Your task to perform on an android device: Search for a custom made wallet Image 0: 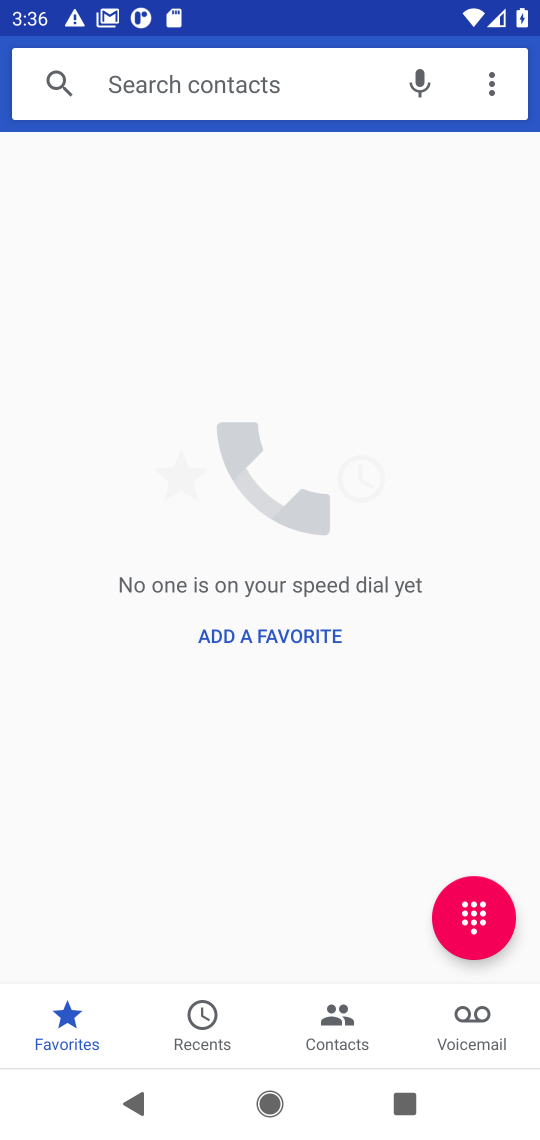
Step 0: press home button
Your task to perform on an android device: Search for a custom made wallet Image 1: 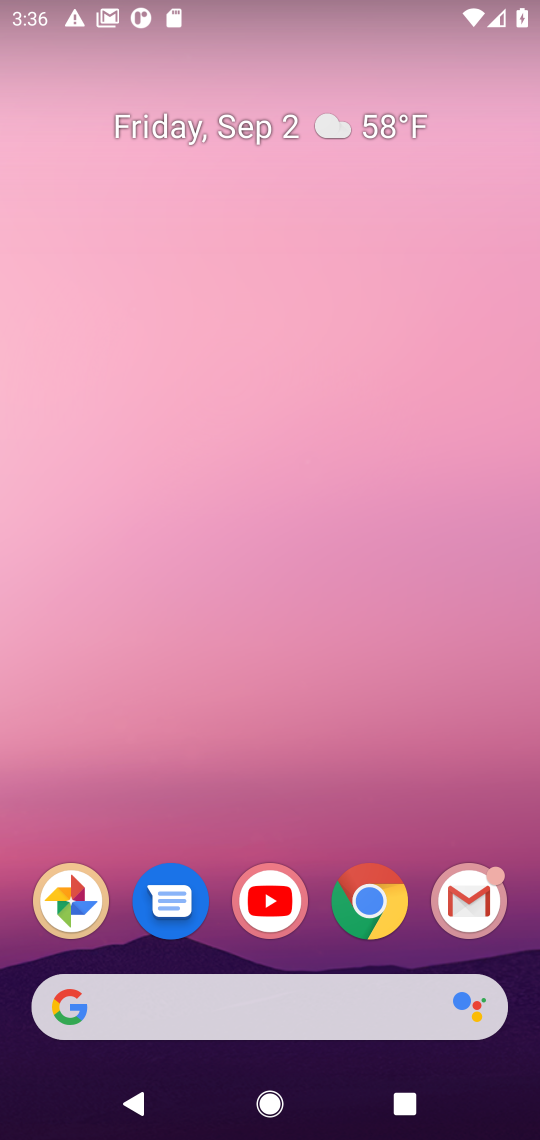
Step 1: drag from (342, 786) to (415, 324)
Your task to perform on an android device: Search for a custom made wallet Image 2: 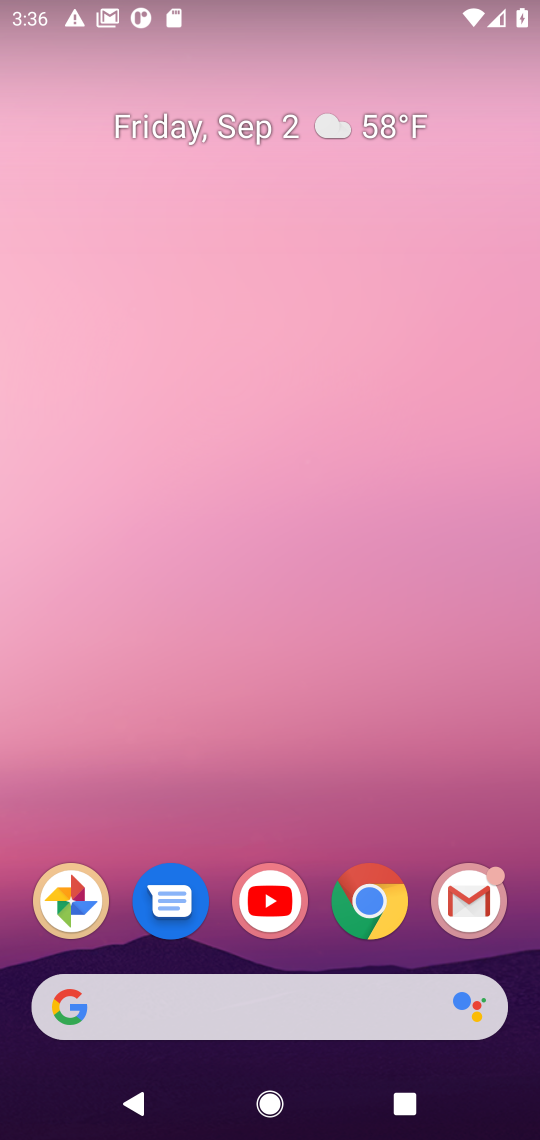
Step 2: drag from (420, 833) to (364, 79)
Your task to perform on an android device: Search for a custom made wallet Image 3: 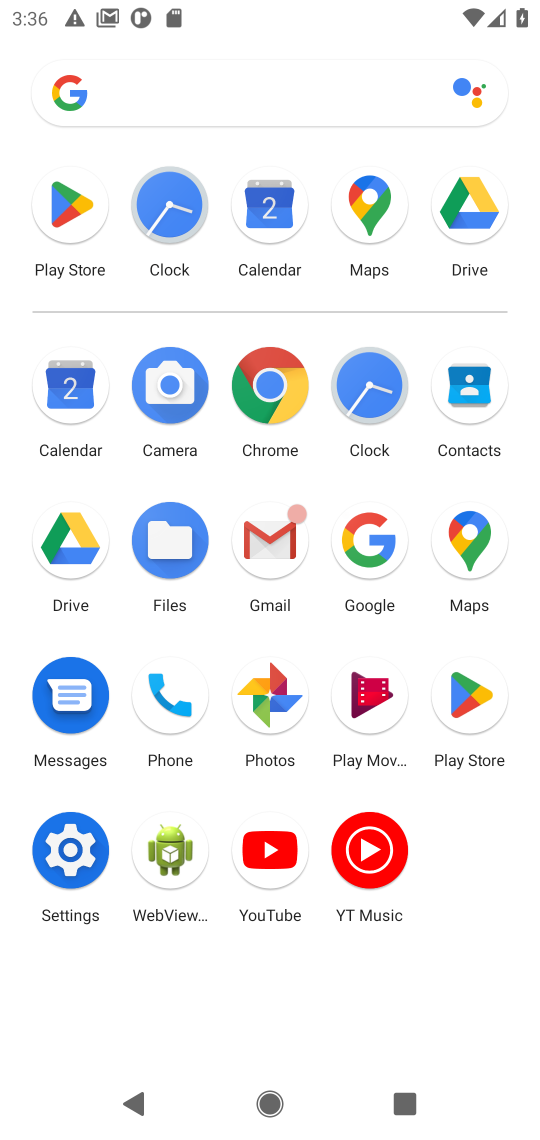
Step 3: click (263, 381)
Your task to perform on an android device: Search for a custom made wallet Image 4: 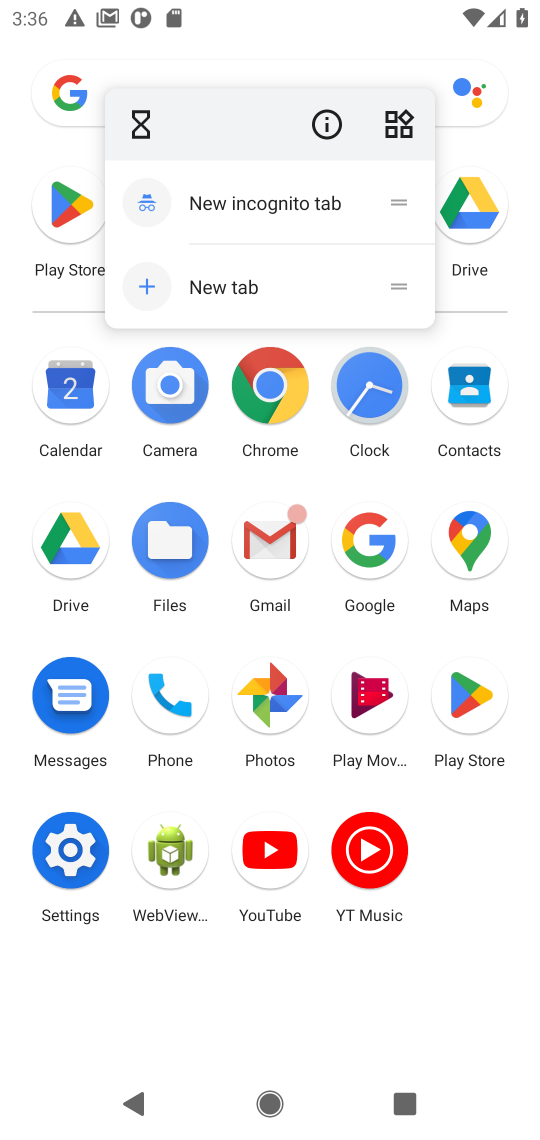
Step 4: click (263, 381)
Your task to perform on an android device: Search for a custom made wallet Image 5: 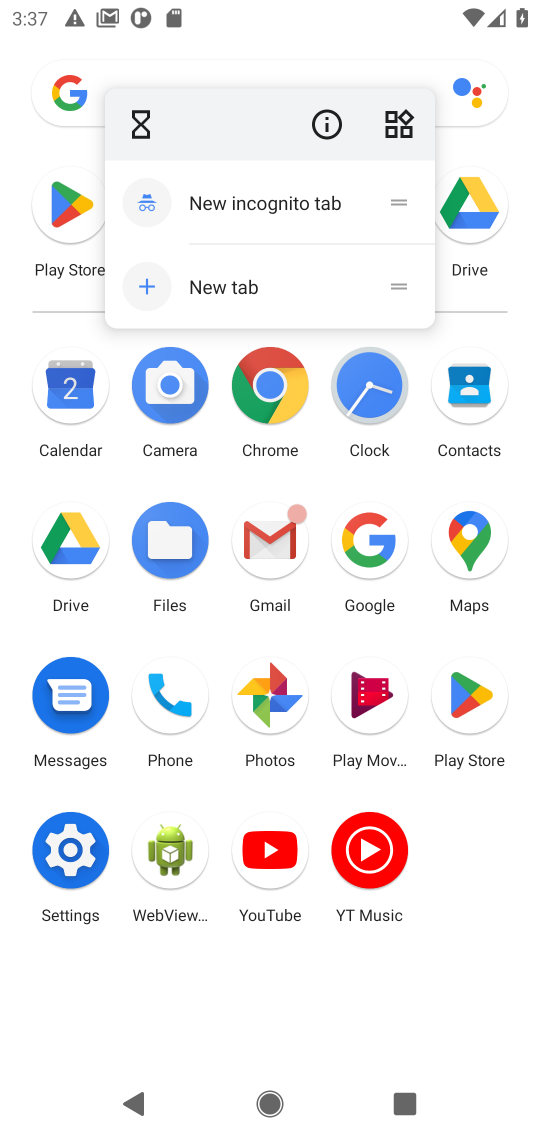
Step 5: click (286, 383)
Your task to perform on an android device: Search for a custom made wallet Image 6: 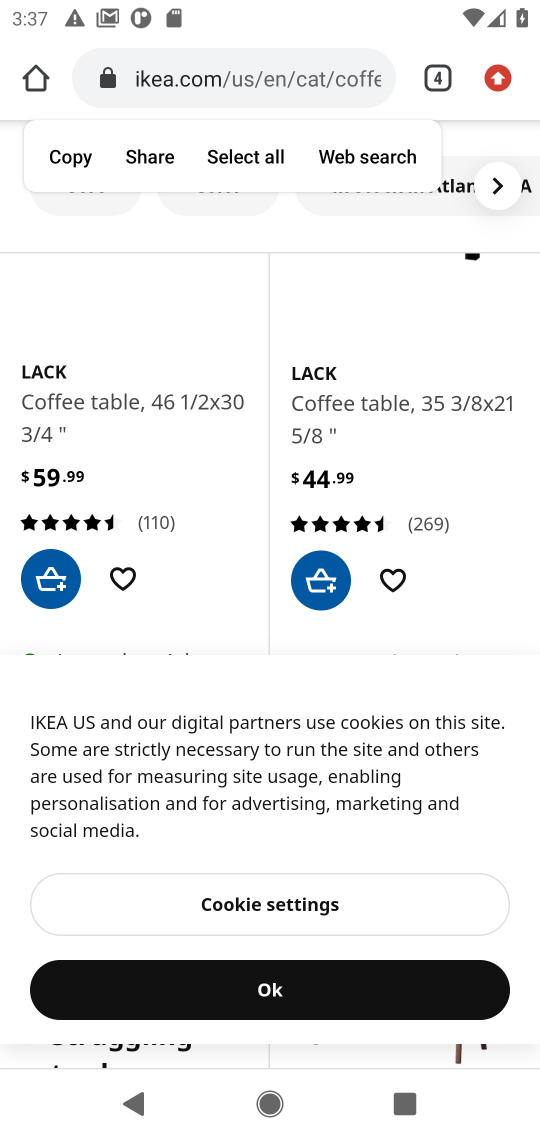
Step 6: click (298, 90)
Your task to perform on an android device: Search for a custom made wallet Image 7: 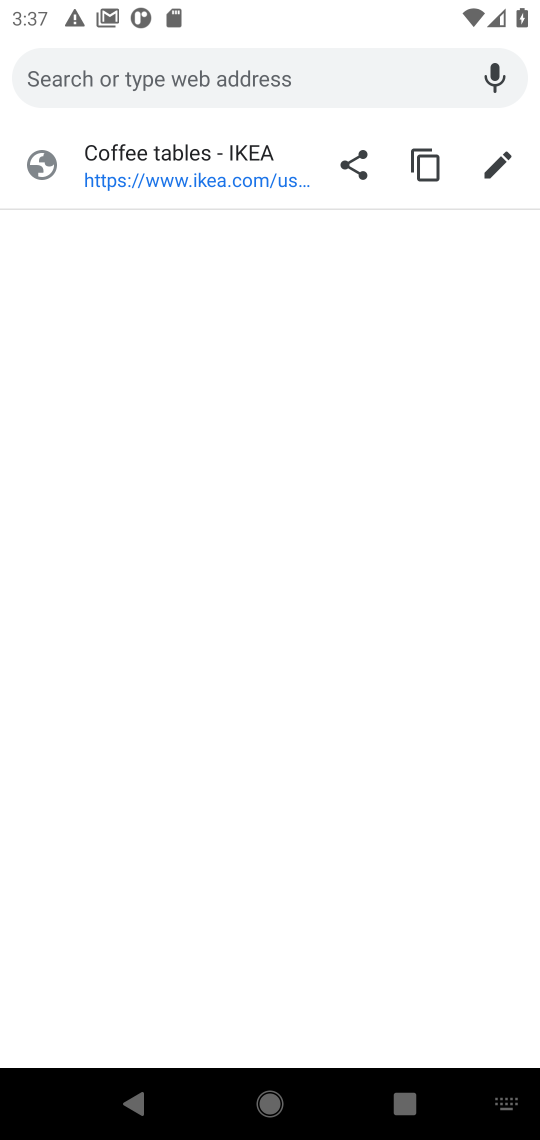
Step 7: type "custom made wallet"
Your task to perform on an android device: Search for a custom made wallet Image 8: 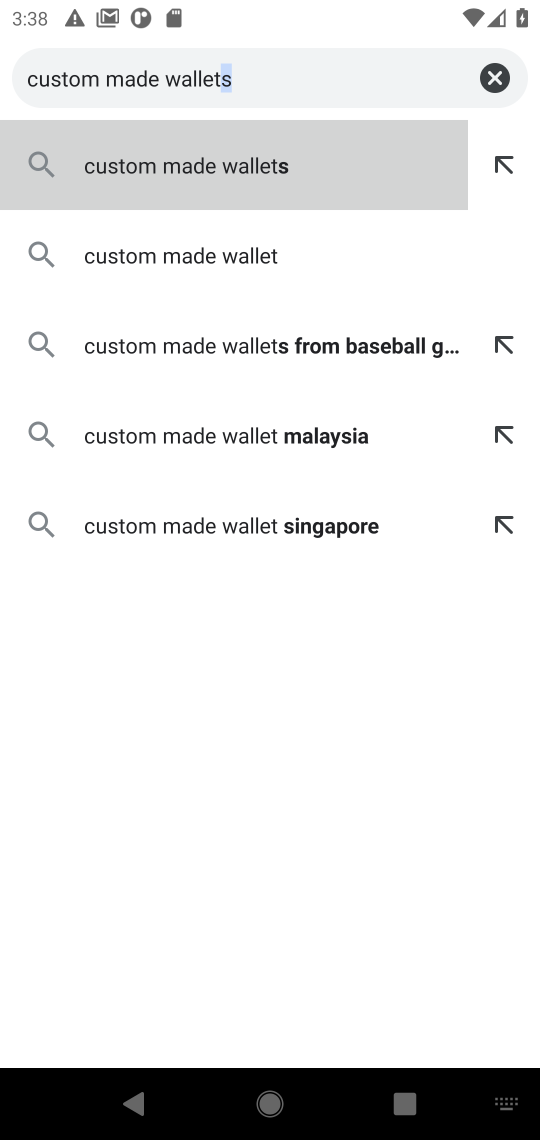
Step 8: click (326, 170)
Your task to perform on an android device: Search for a custom made wallet Image 9: 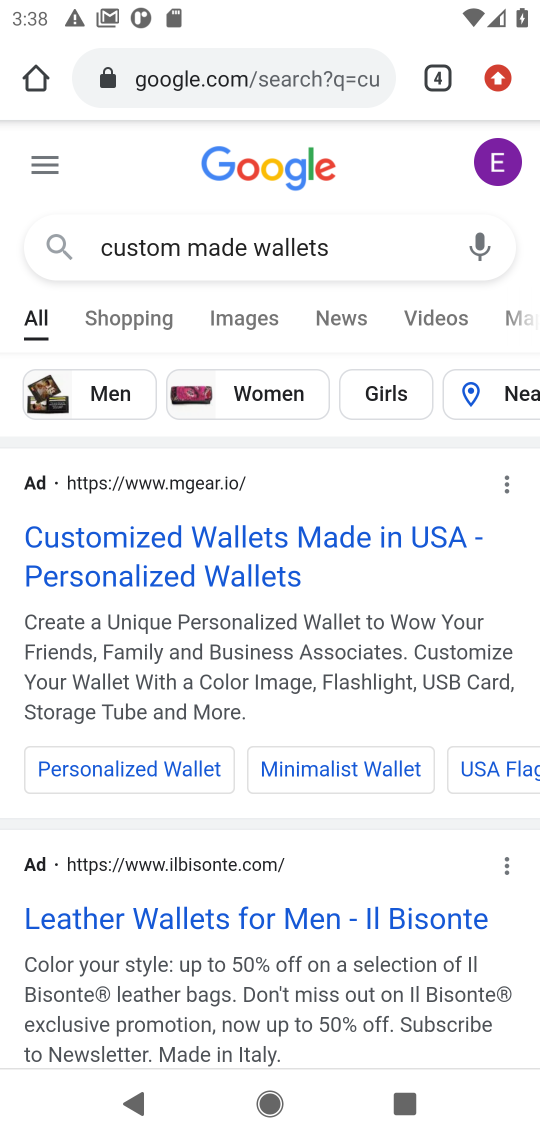
Step 9: drag from (306, 915) to (401, 14)
Your task to perform on an android device: Search for a custom made wallet Image 10: 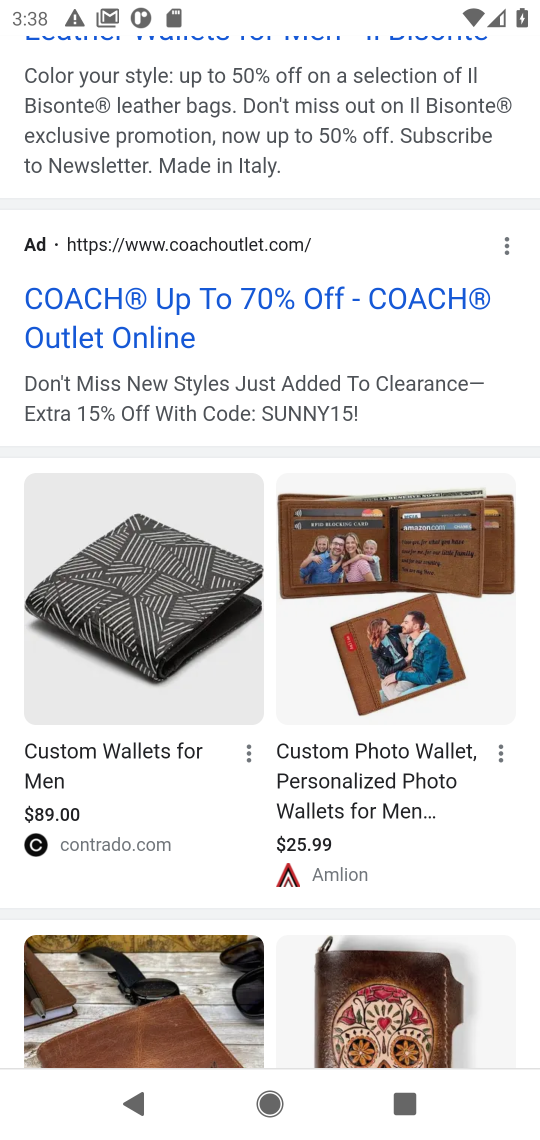
Step 10: drag from (240, 750) to (309, 147)
Your task to perform on an android device: Search for a custom made wallet Image 11: 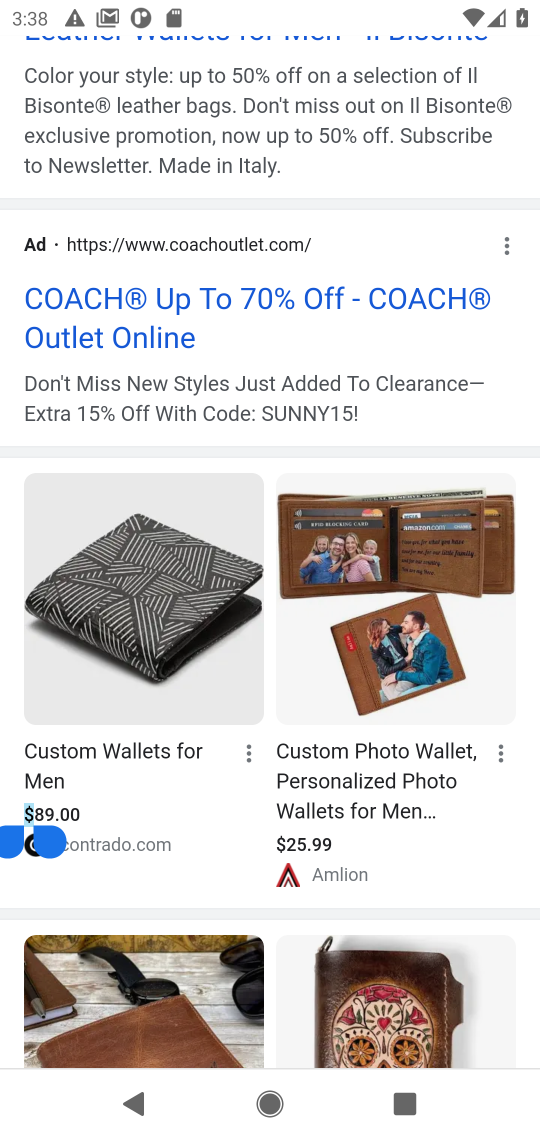
Step 11: drag from (314, 416) to (379, 137)
Your task to perform on an android device: Search for a custom made wallet Image 12: 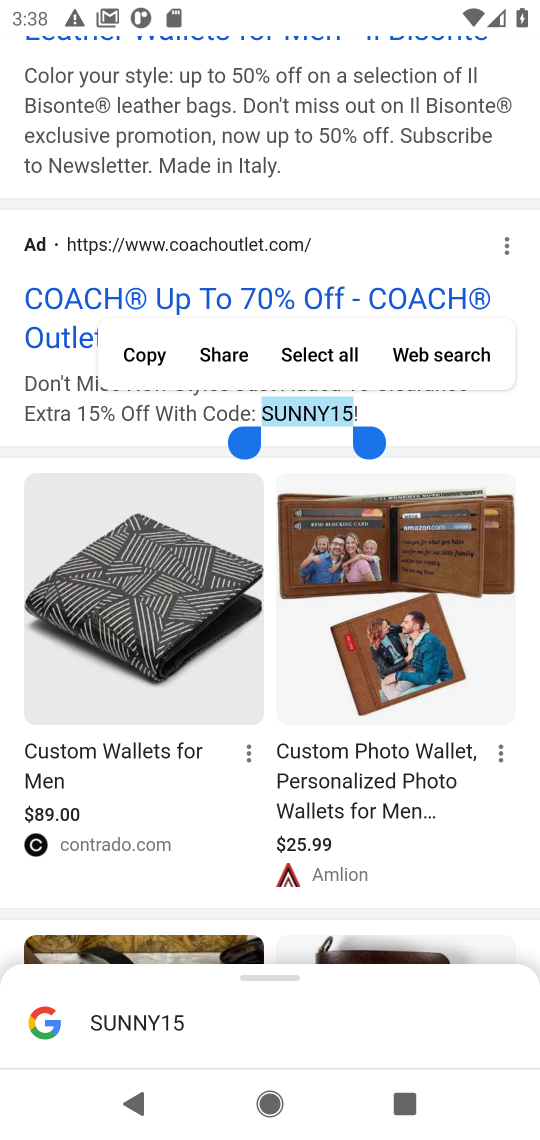
Step 12: drag from (262, 865) to (359, 164)
Your task to perform on an android device: Search for a custom made wallet Image 13: 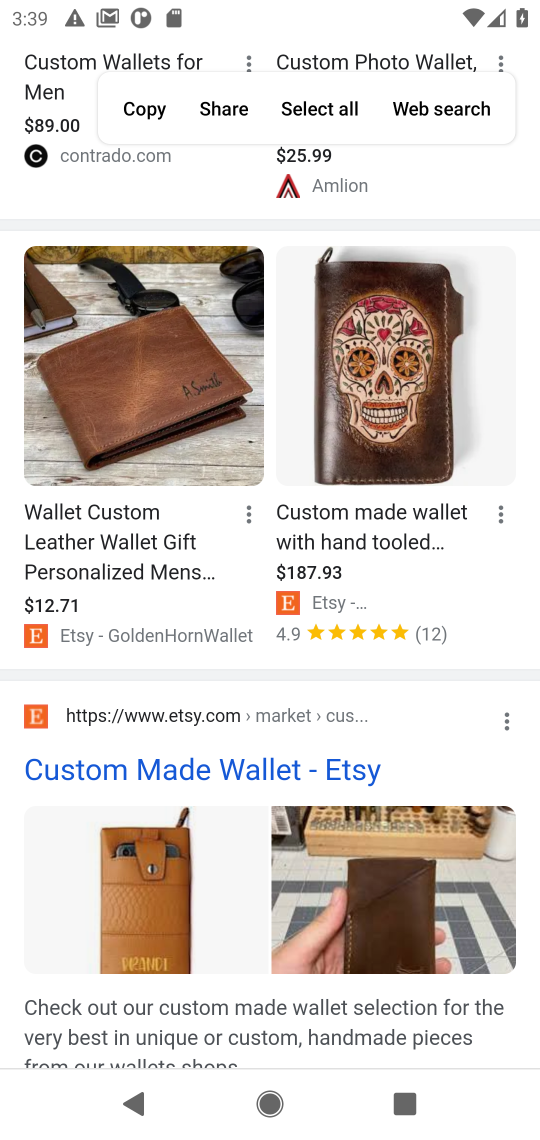
Step 13: click (135, 763)
Your task to perform on an android device: Search for a custom made wallet Image 14: 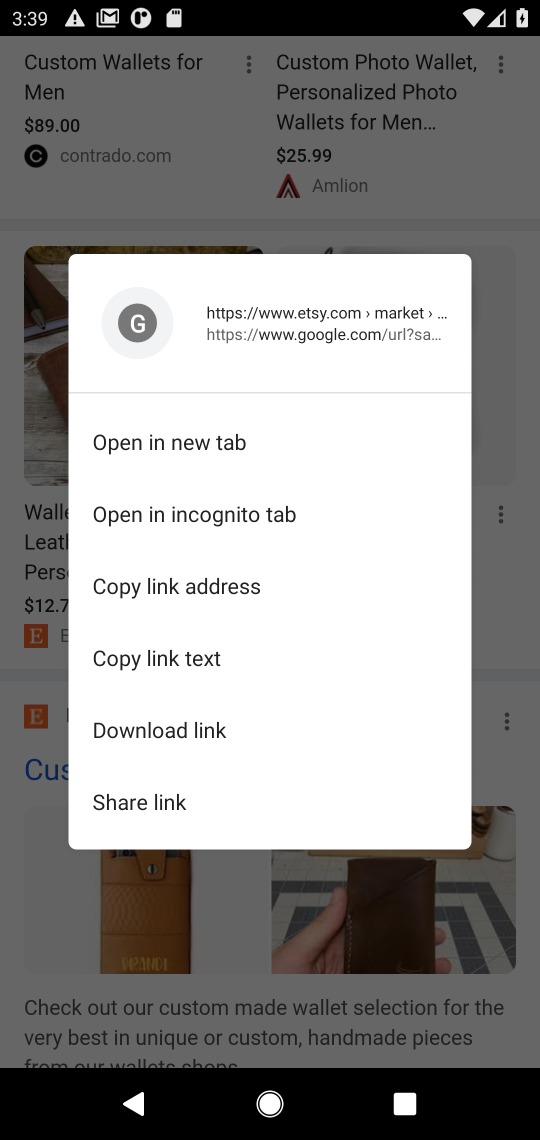
Step 14: click (350, 874)
Your task to perform on an android device: Search for a custom made wallet Image 15: 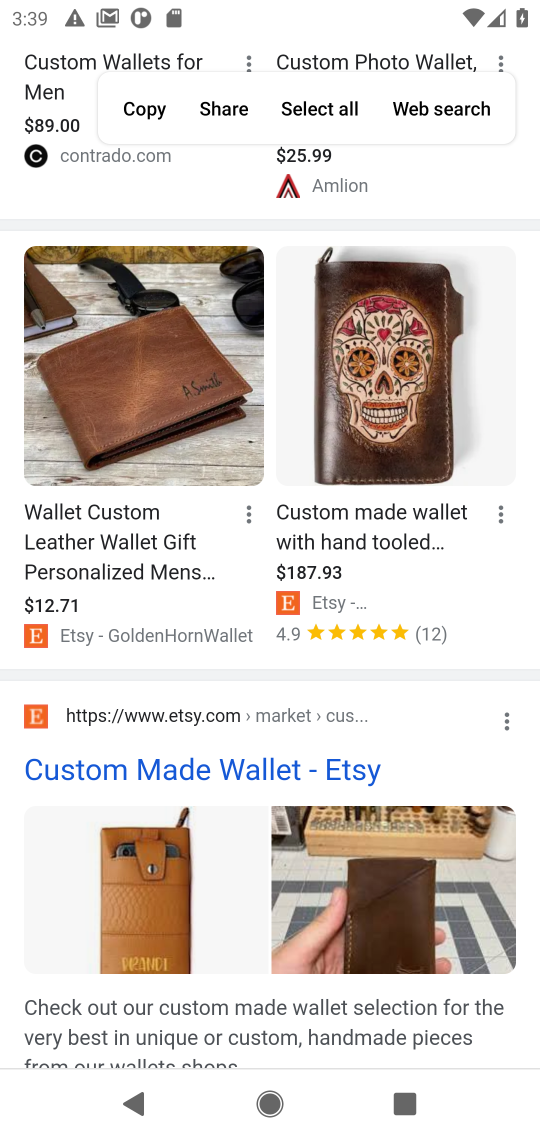
Step 15: click (222, 765)
Your task to perform on an android device: Search for a custom made wallet Image 16: 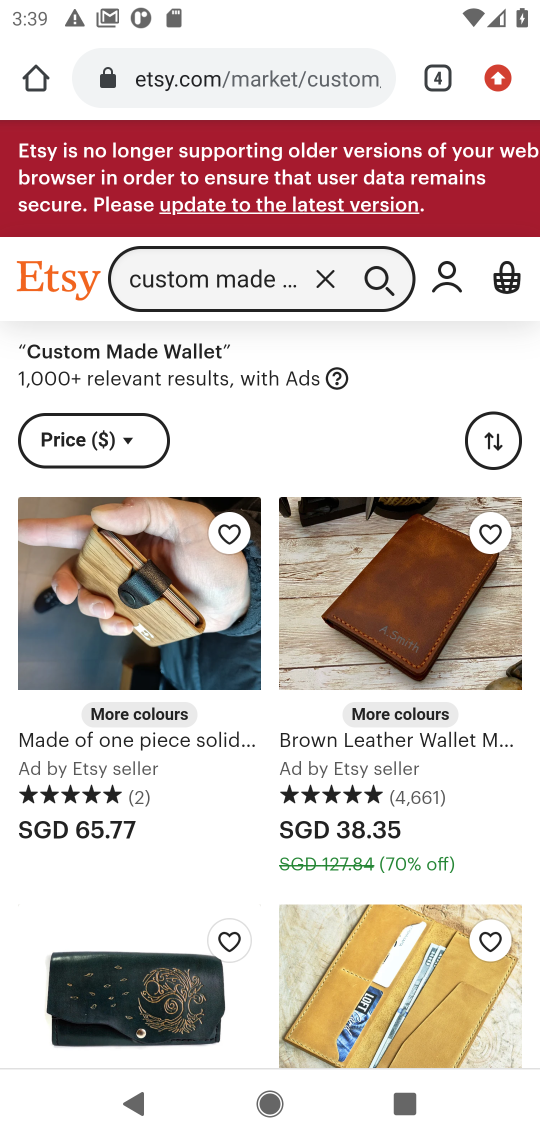
Step 16: task complete